Your task to perform on an android device: delete location history Image 0: 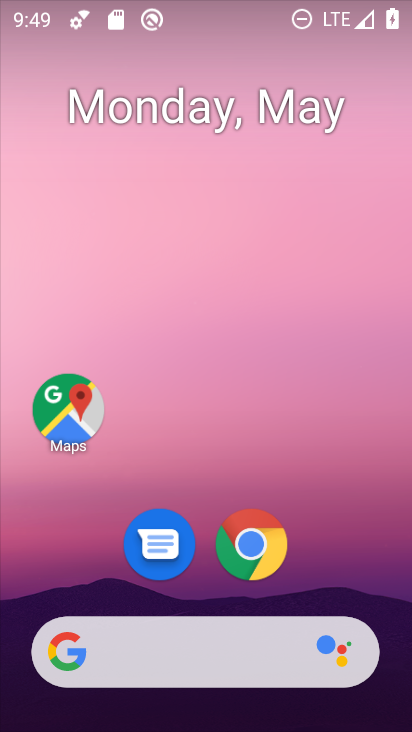
Step 0: drag from (385, 567) to (297, 161)
Your task to perform on an android device: delete location history Image 1: 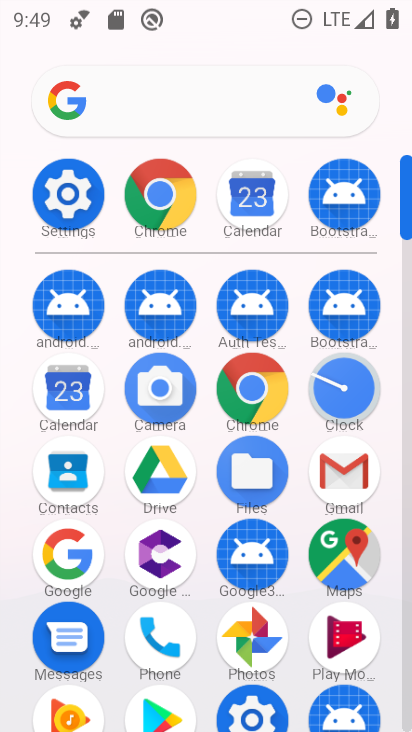
Step 1: click (70, 205)
Your task to perform on an android device: delete location history Image 2: 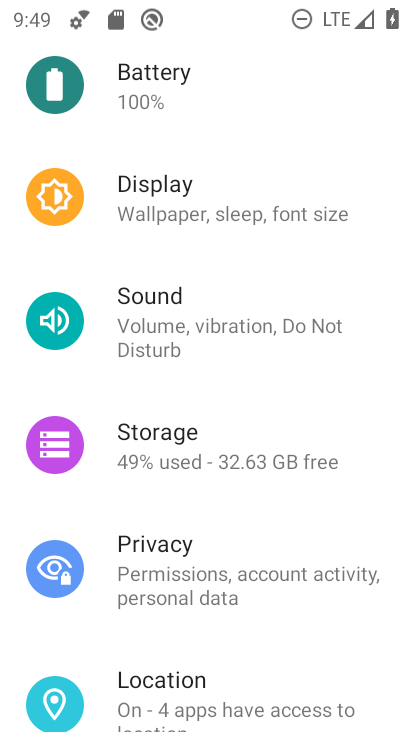
Step 2: click (191, 680)
Your task to perform on an android device: delete location history Image 3: 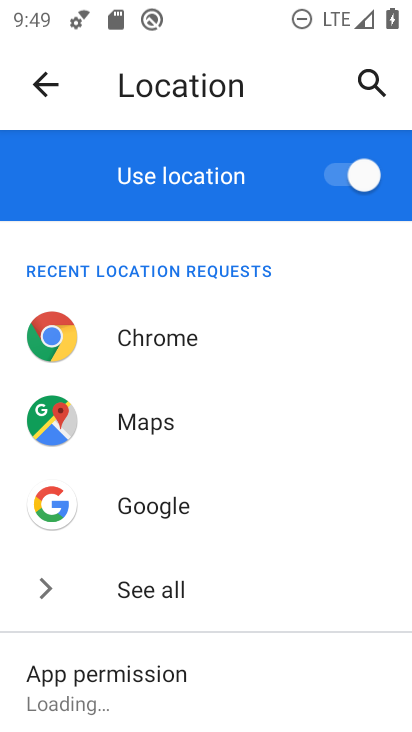
Step 3: drag from (230, 640) to (272, 304)
Your task to perform on an android device: delete location history Image 4: 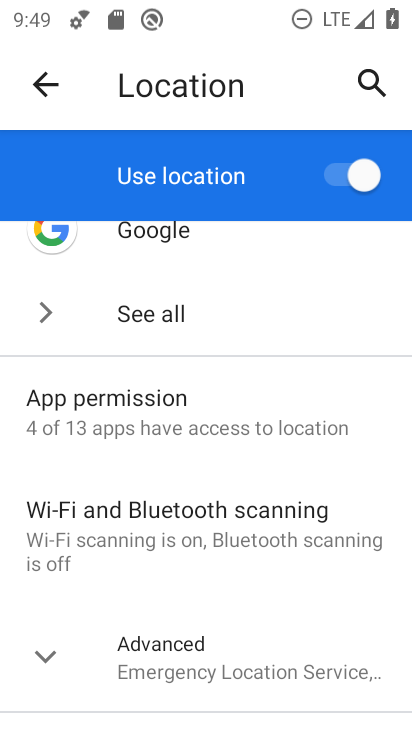
Step 4: click (238, 673)
Your task to perform on an android device: delete location history Image 5: 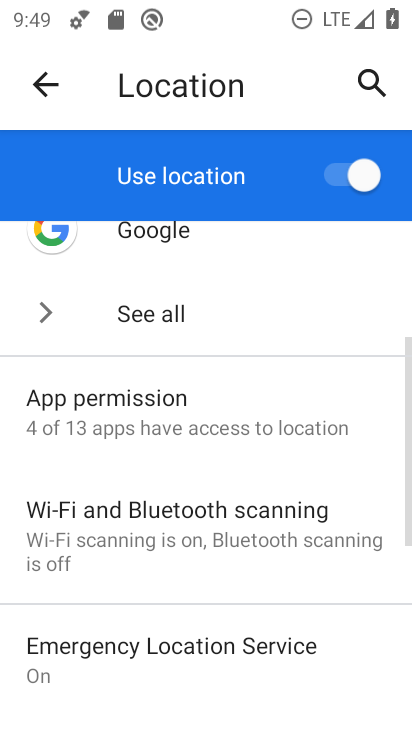
Step 5: drag from (220, 682) to (212, 352)
Your task to perform on an android device: delete location history Image 6: 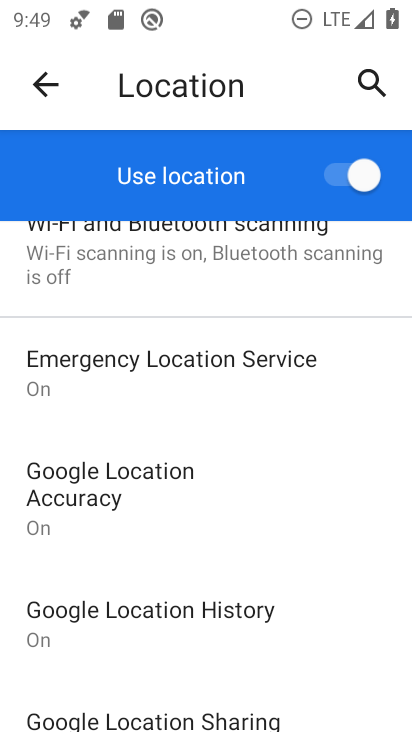
Step 6: drag from (223, 678) to (261, 369)
Your task to perform on an android device: delete location history Image 7: 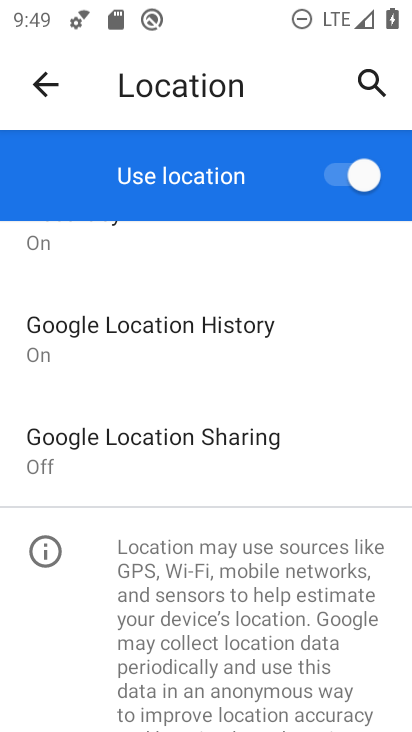
Step 7: click (124, 336)
Your task to perform on an android device: delete location history Image 8: 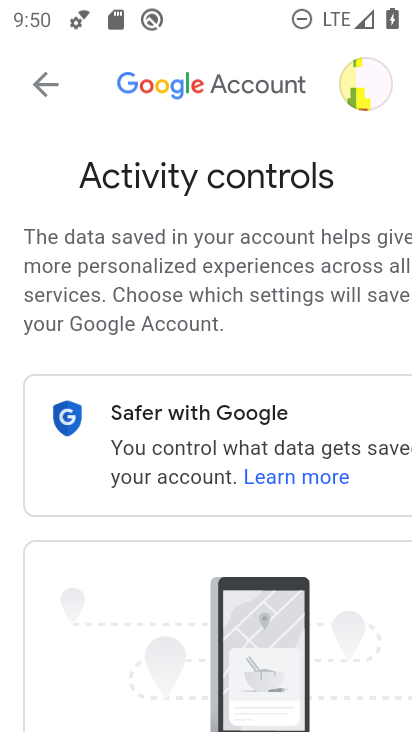
Step 8: drag from (101, 659) to (127, 193)
Your task to perform on an android device: delete location history Image 9: 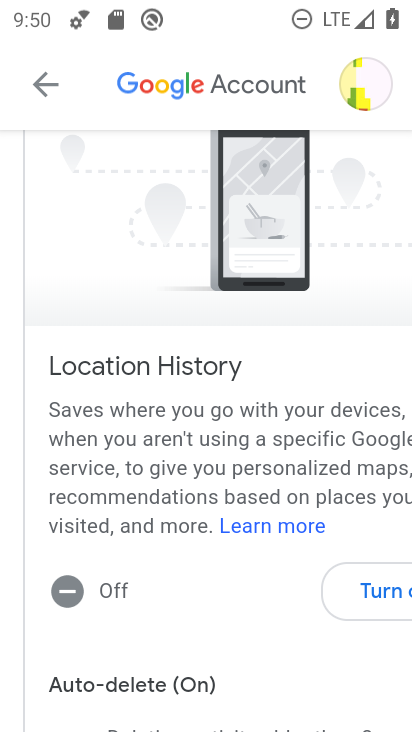
Step 9: drag from (135, 629) to (155, 158)
Your task to perform on an android device: delete location history Image 10: 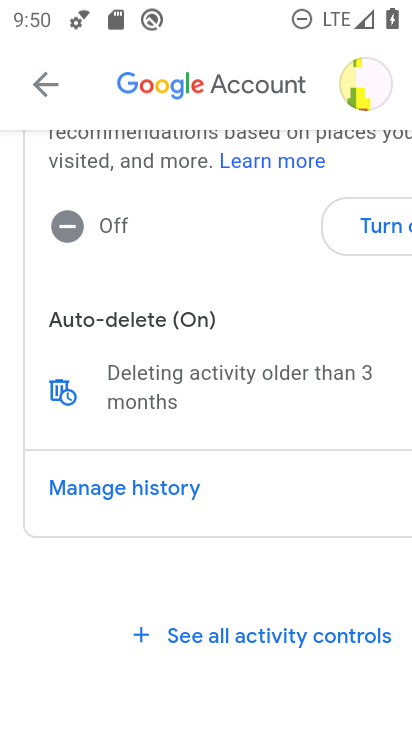
Step 10: click (176, 488)
Your task to perform on an android device: delete location history Image 11: 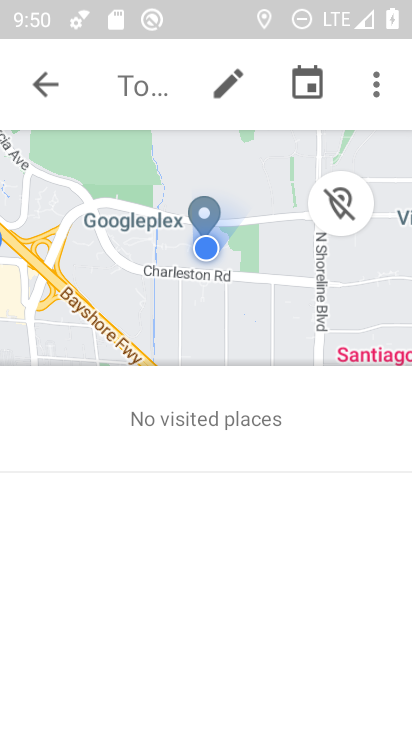
Step 11: click (371, 100)
Your task to perform on an android device: delete location history Image 12: 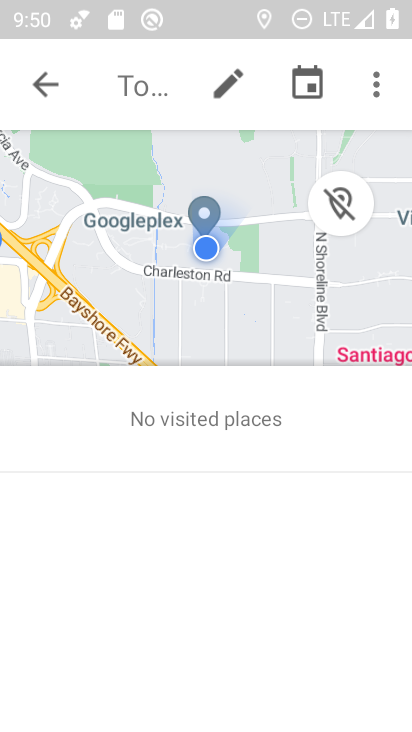
Step 12: click (384, 106)
Your task to perform on an android device: delete location history Image 13: 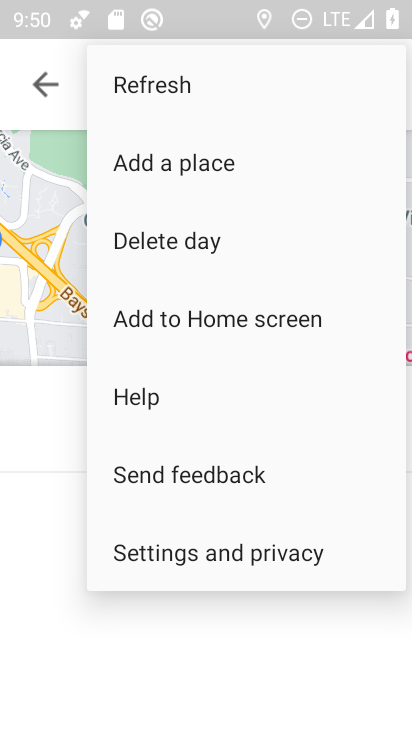
Step 13: click (261, 551)
Your task to perform on an android device: delete location history Image 14: 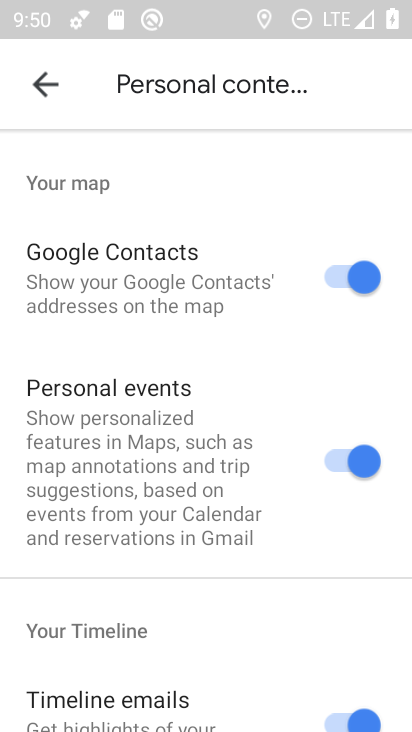
Step 14: drag from (254, 651) to (268, 154)
Your task to perform on an android device: delete location history Image 15: 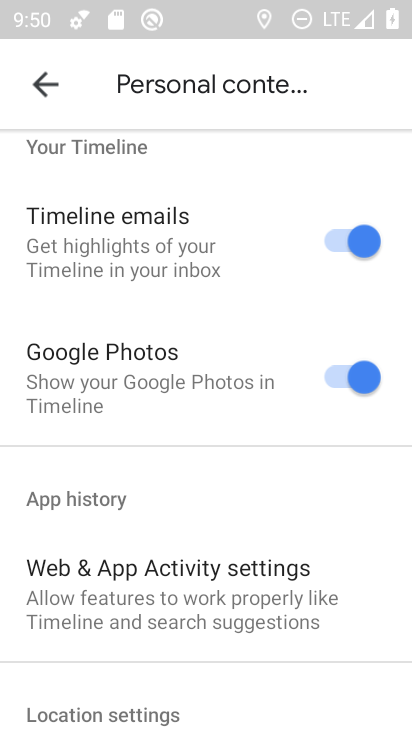
Step 15: drag from (230, 681) to (200, 221)
Your task to perform on an android device: delete location history Image 16: 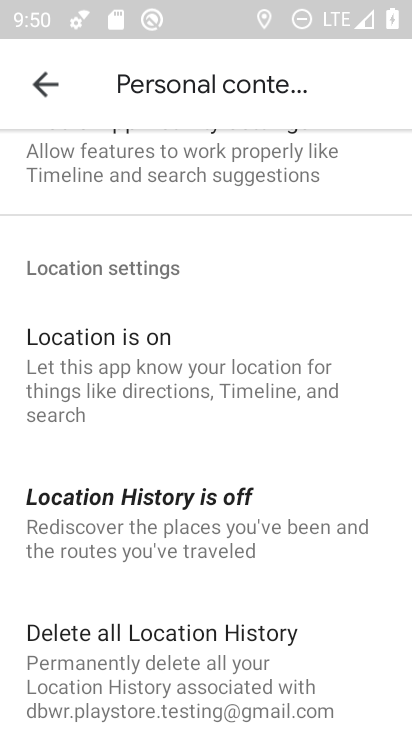
Step 16: click (225, 665)
Your task to perform on an android device: delete location history Image 17: 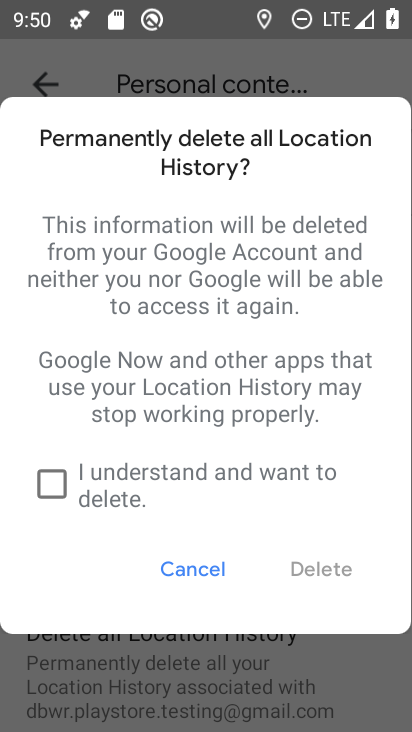
Step 17: click (60, 489)
Your task to perform on an android device: delete location history Image 18: 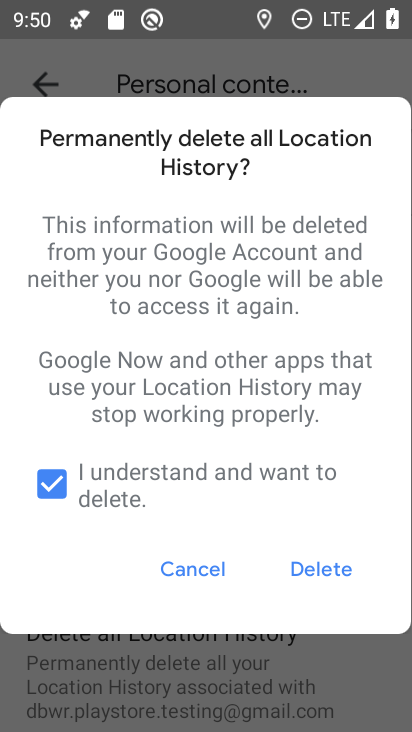
Step 18: click (315, 569)
Your task to perform on an android device: delete location history Image 19: 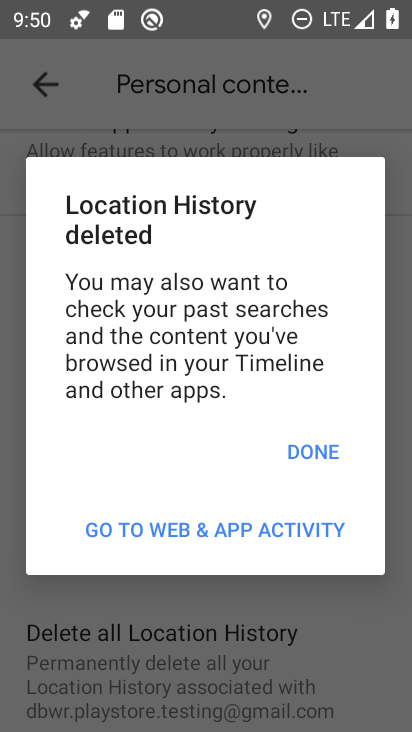
Step 19: click (312, 448)
Your task to perform on an android device: delete location history Image 20: 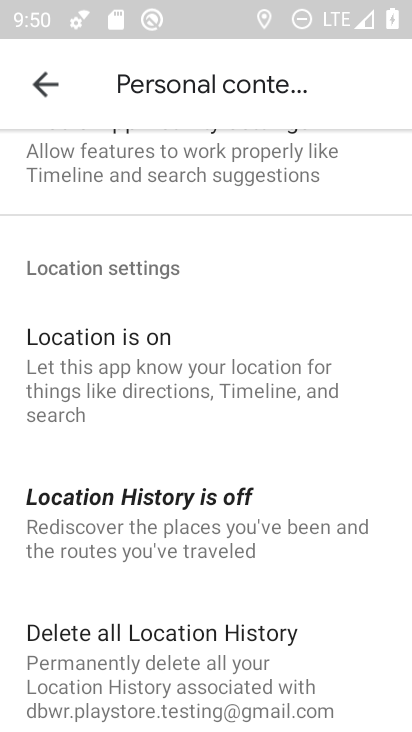
Step 20: task complete